Your task to perform on an android device: What is the news today? Image 0: 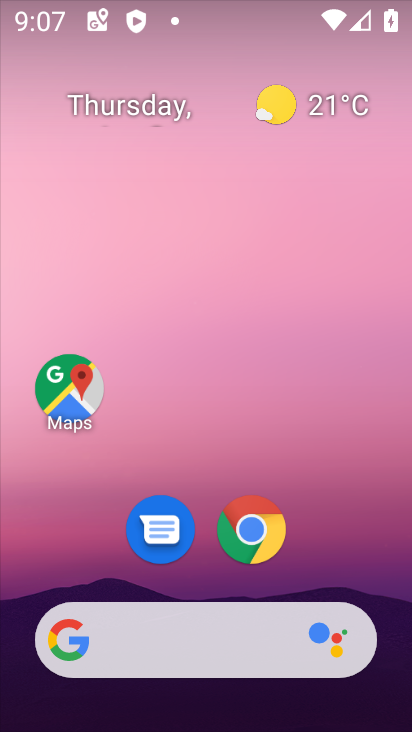
Step 0: click (272, 638)
Your task to perform on an android device: What is the news today? Image 1: 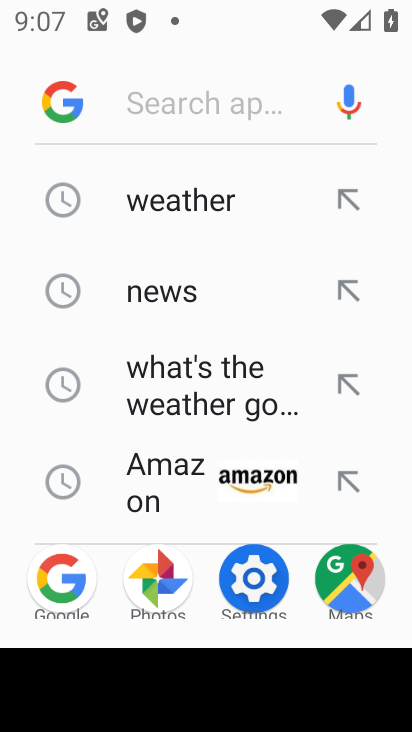
Step 1: type "What is the news today?"
Your task to perform on an android device: What is the news today? Image 2: 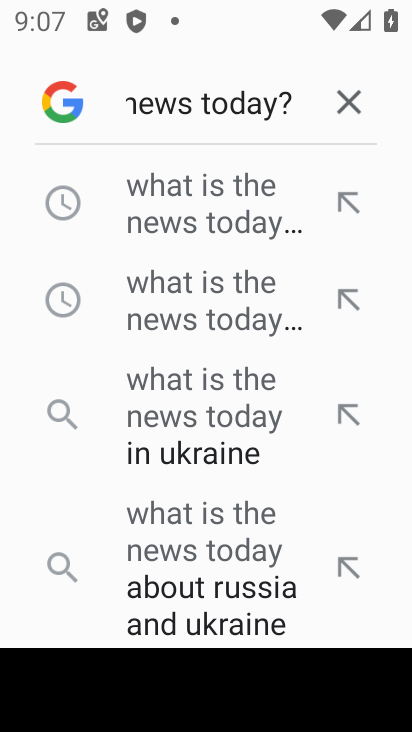
Step 2: click (258, 206)
Your task to perform on an android device: What is the news today? Image 3: 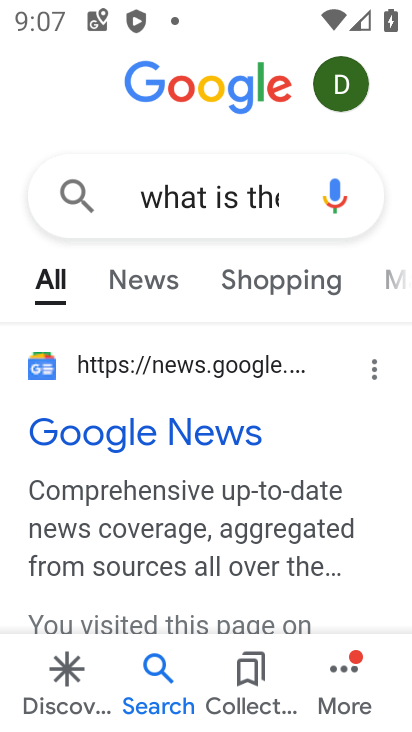
Step 3: click (238, 435)
Your task to perform on an android device: What is the news today? Image 4: 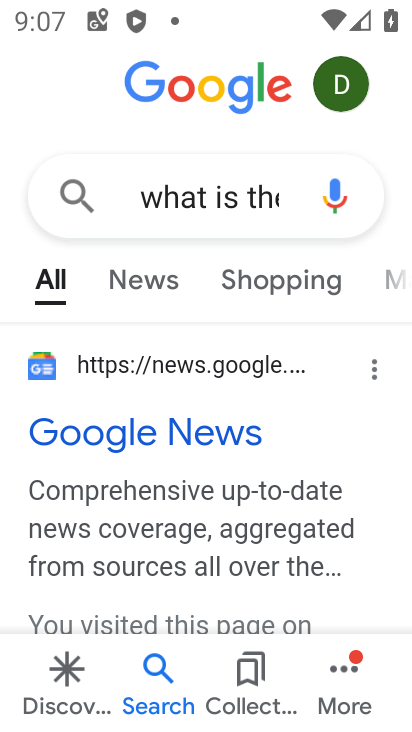
Step 4: click (247, 371)
Your task to perform on an android device: What is the news today? Image 5: 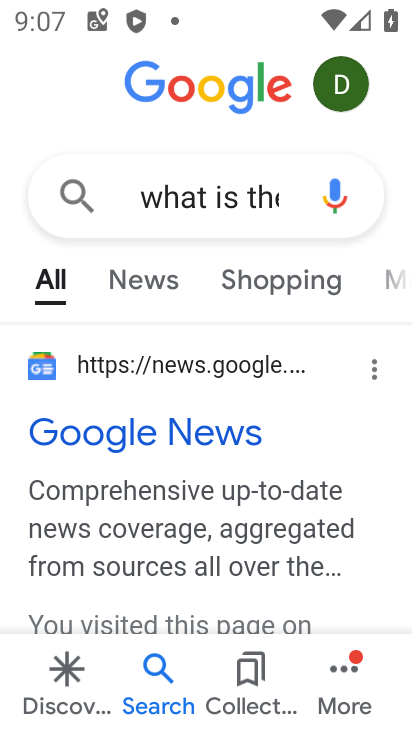
Step 5: click (251, 365)
Your task to perform on an android device: What is the news today? Image 6: 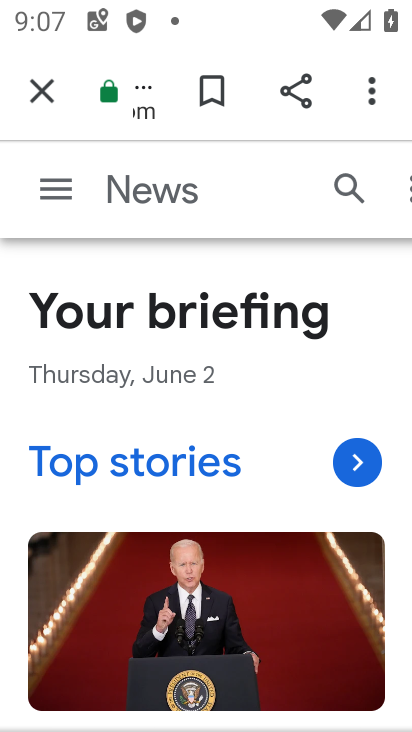
Step 6: task complete